Your task to perform on an android device: What's on my calendar today? Image 0: 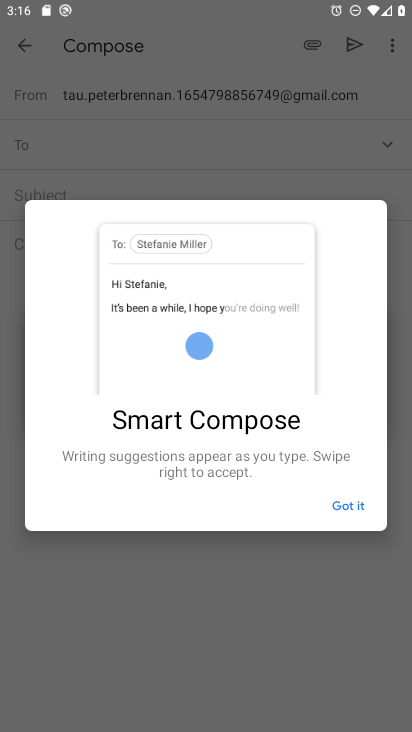
Step 0: press home button
Your task to perform on an android device: What's on my calendar today? Image 1: 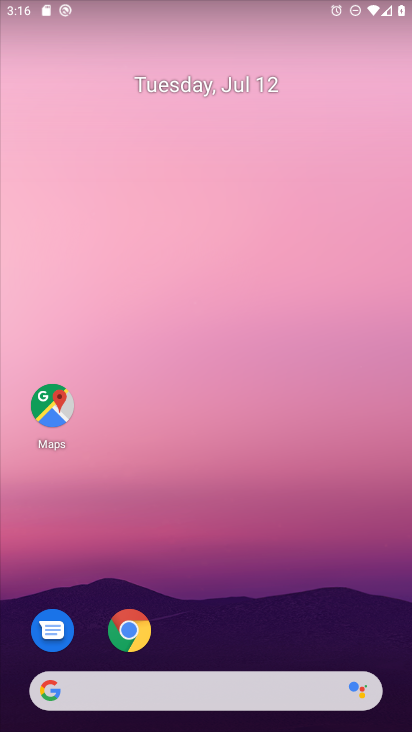
Step 1: drag from (218, 632) to (232, 97)
Your task to perform on an android device: What's on my calendar today? Image 2: 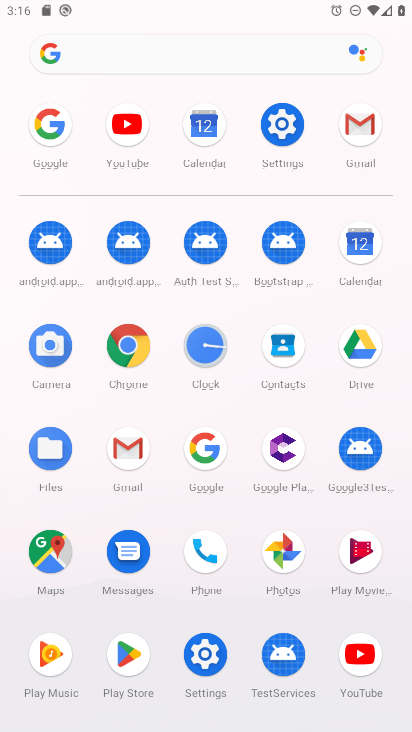
Step 2: click (203, 147)
Your task to perform on an android device: What's on my calendar today? Image 3: 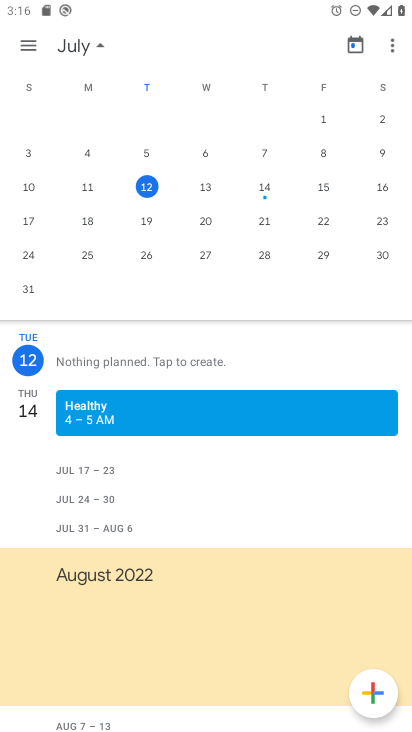
Step 3: click (253, 412)
Your task to perform on an android device: What's on my calendar today? Image 4: 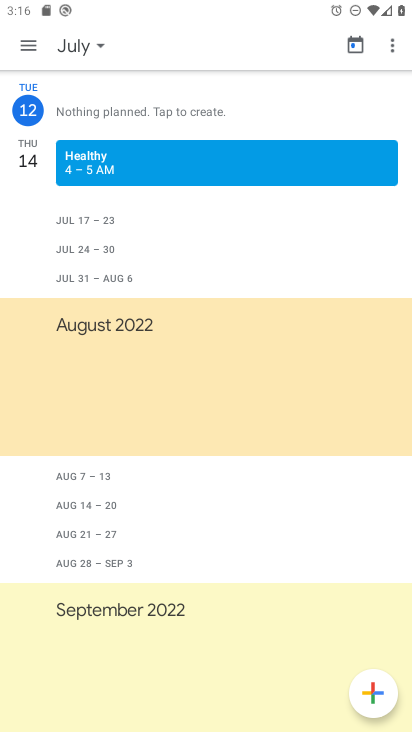
Step 4: task complete